Your task to perform on an android device: Open calendar and show me the second week of next month Image 0: 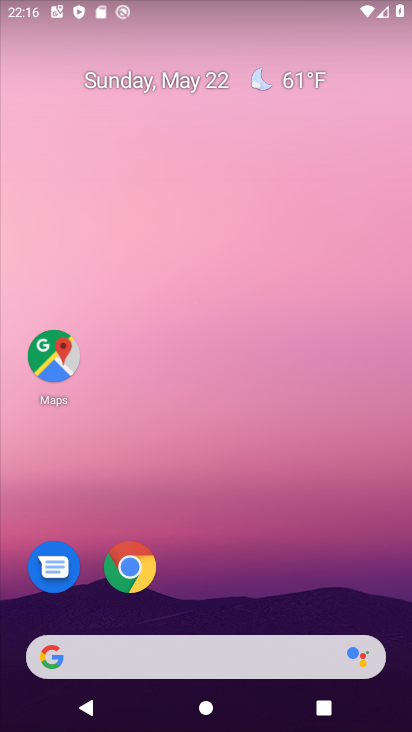
Step 0: drag from (249, 622) to (148, 23)
Your task to perform on an android device: Open calendar and show me the second week of next month Image 1: 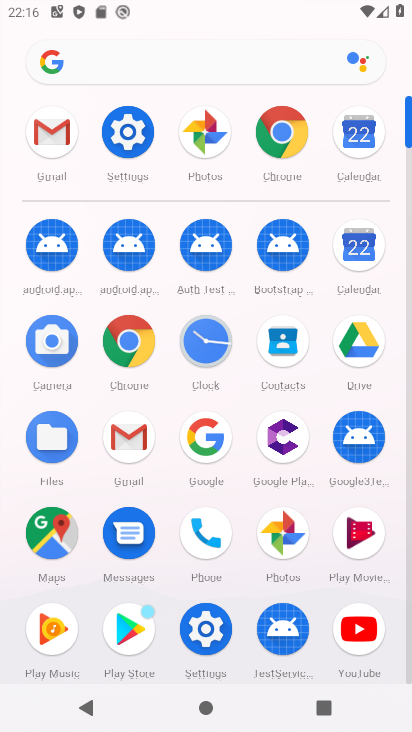
Step 1: click (356, 260)
Your task to perform on an android device: Open calendar and show me the second week of next month Image 2: 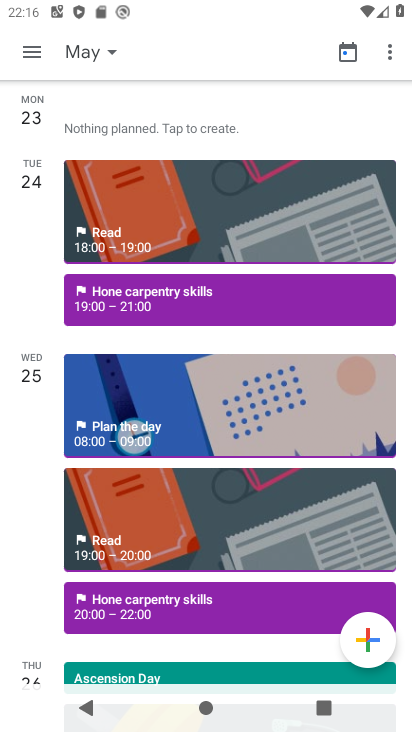
Step 2: click (385, 53)
Your task to perform on an android device: Open calendar and show me the second week of next month Image 3: 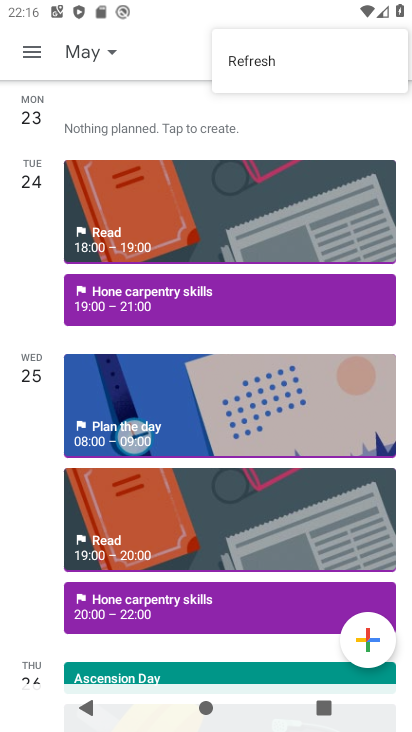
Step 3: click (296, 76)
Your task to perform on an android device: Open calendar and show me the second week of next month Image 4: 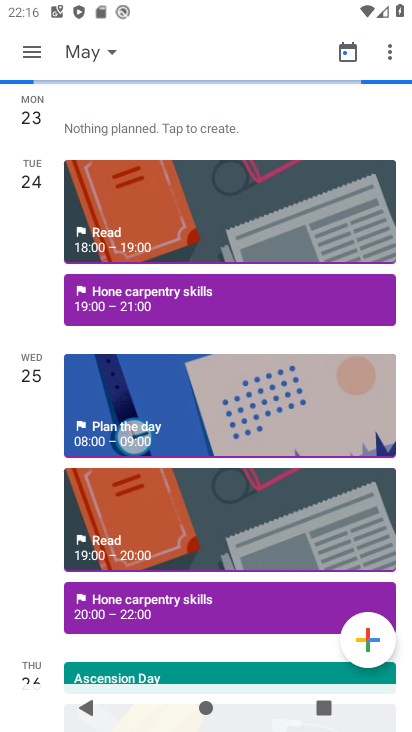
Step 4: click (350, 43)
Your task to perform on an android device: Open calendar and show me the second week of next month Image 5: 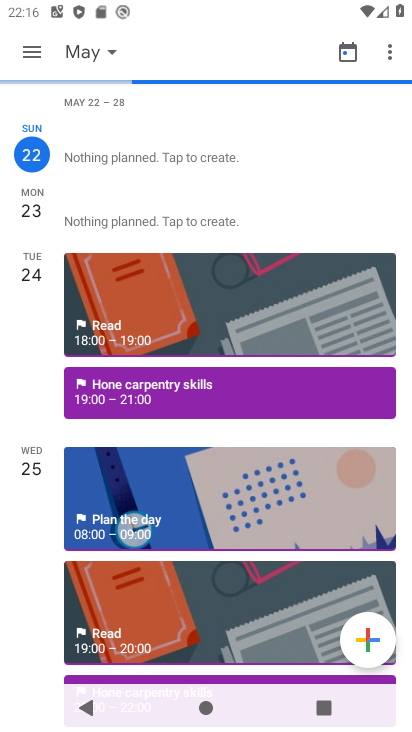
Step 5: click (348, 44)
Your task to perform on an android device: Open calendar and show me the second week of next month Image 6: 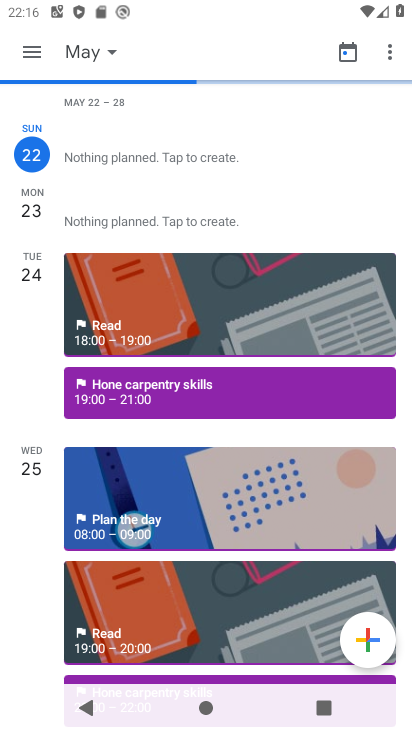
Step 6: click (344, 55)
Your task to perform on an android device: Open calendar and show me the second week of next month Image 7: 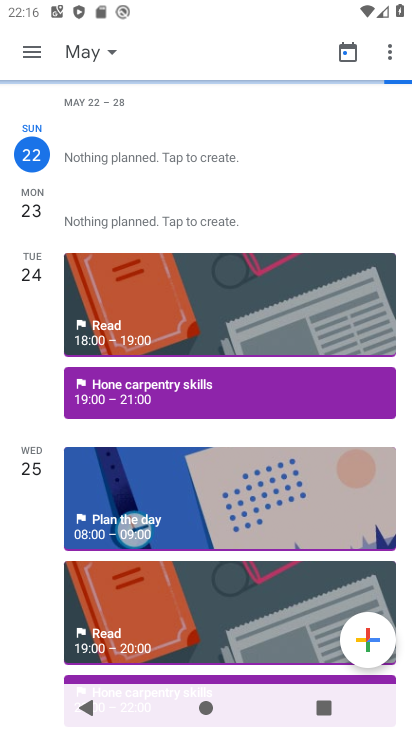
Step 7: click (341, 58)
Your task to perform on an android device: Open calendar and show me the second week of next month Image 8: 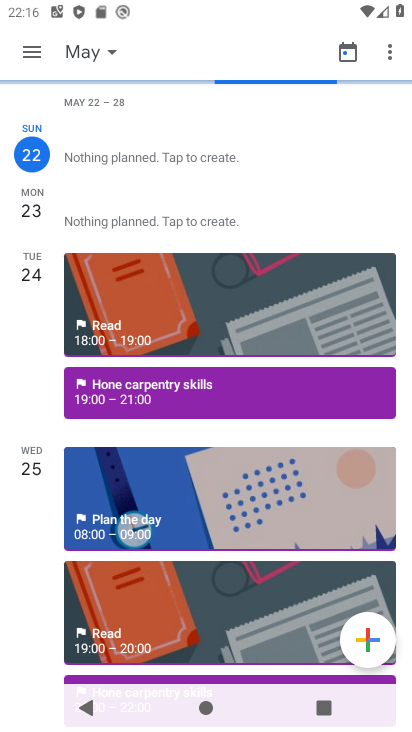
Step 8: click (21, 35)
Your task to perform on an android device: Open calendar and show me the second week of next month Image 9: 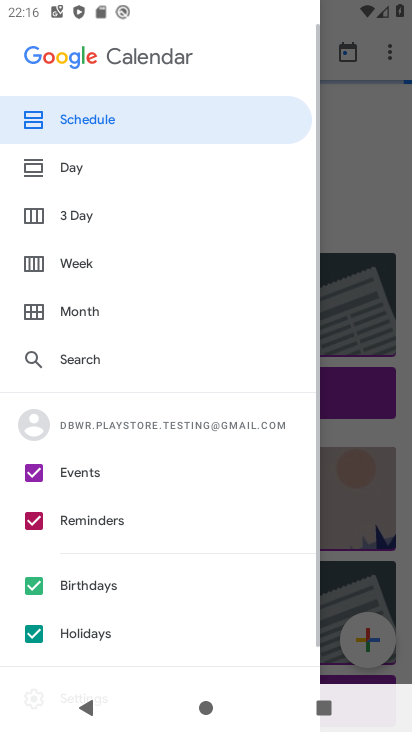
Step 9: click (80, 257)
Your task to perform on an android device: Open calendar and show me the second week of next month Image 10: 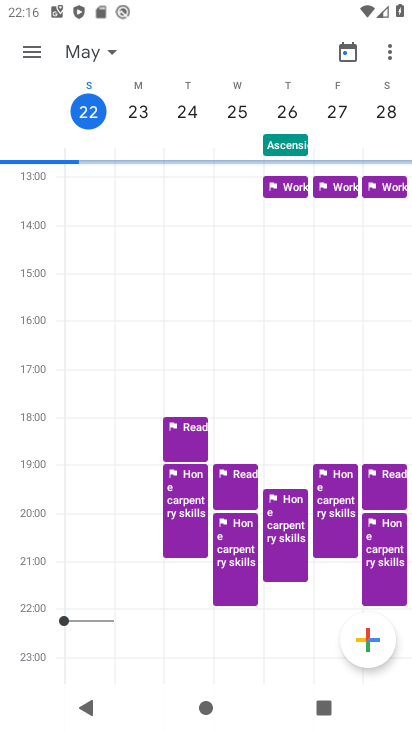
Step 10: task complete